Your task to perform on an android device: What is the capital of Norway? Image 0: 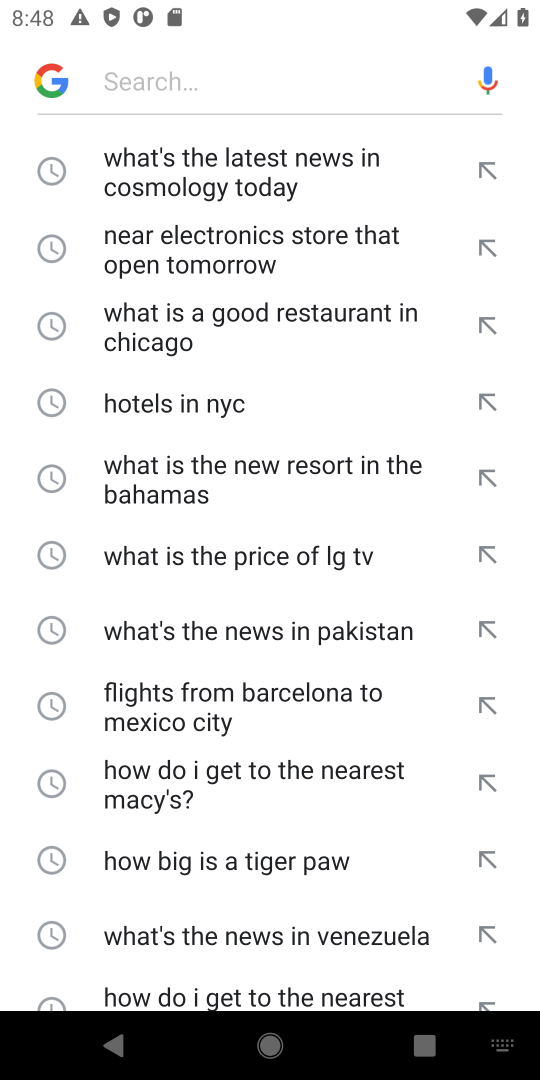
Step 0: press home button
Your task to perform on an android device: What is the capital of Norway? Image 1: 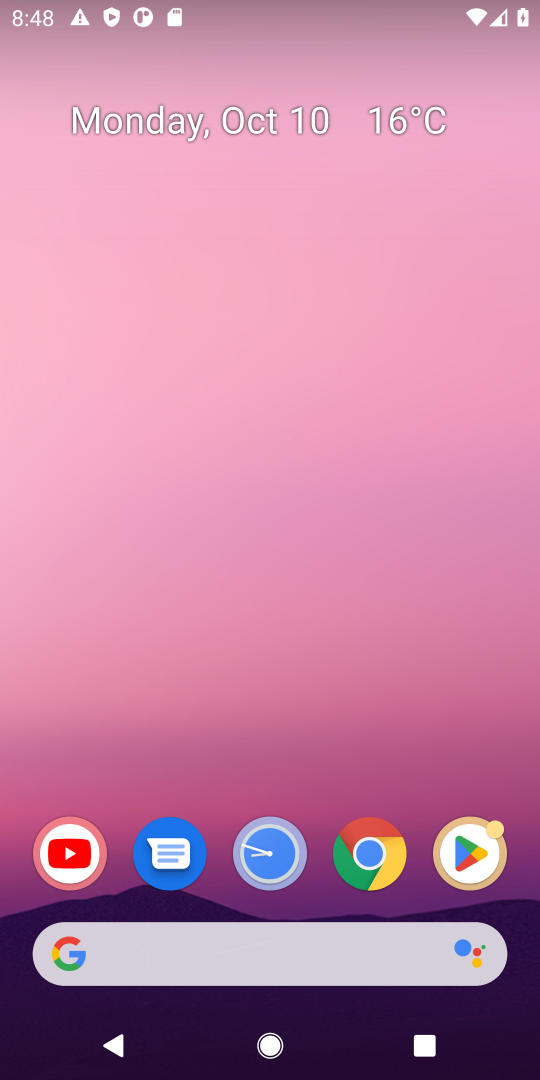
Step 1: drag from (343, 917) to (322, 85)
Your task to perform on an android device: What is the capital of Norway? Image 2: 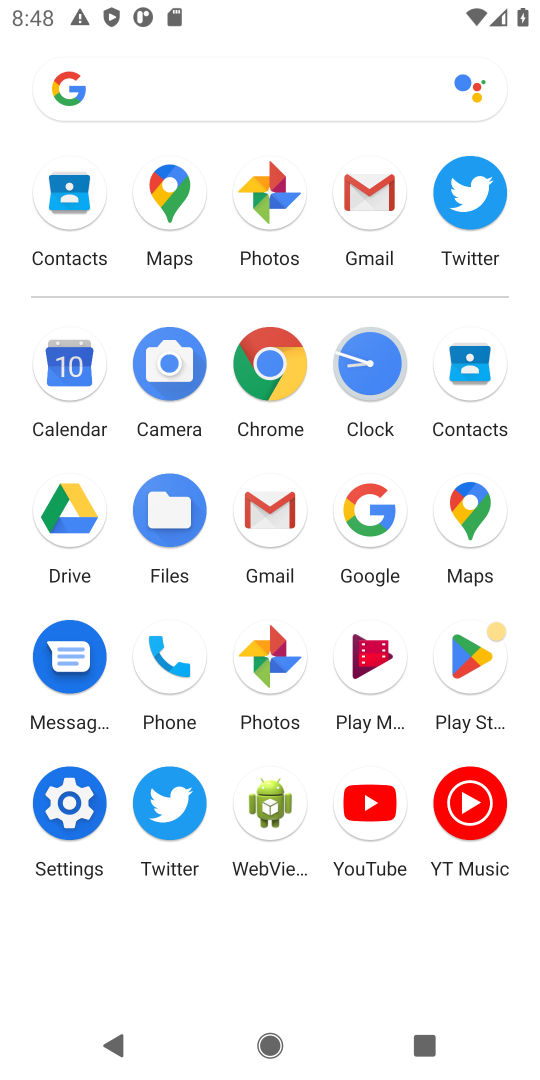
Step 2: click (375, 507)
Your task to perform on an android device: What is the capital of Norway? Image 3: 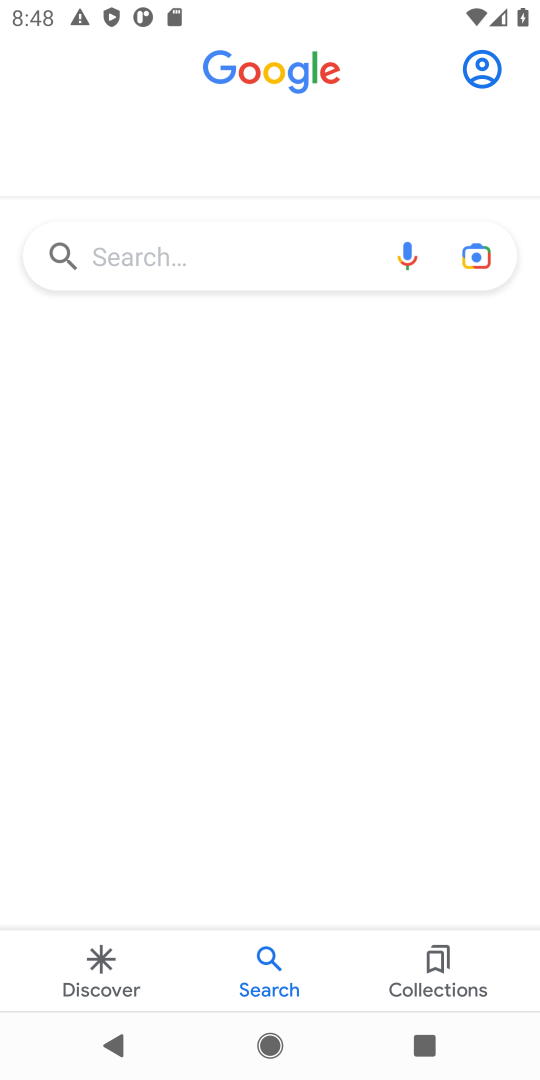
Step 3: click (163, 268)
Your task to perform on an android device: What is the capital of Norway? Image 4: 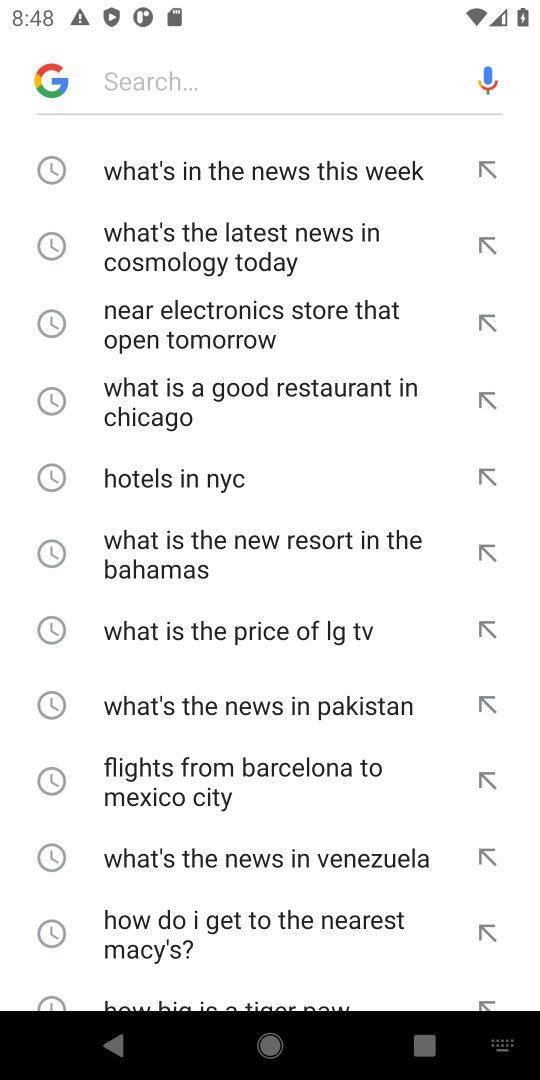
Step 4: type "What is the capital of Norway?"
Your task to perform on an android device: What is the capital of Norway? Image 5: 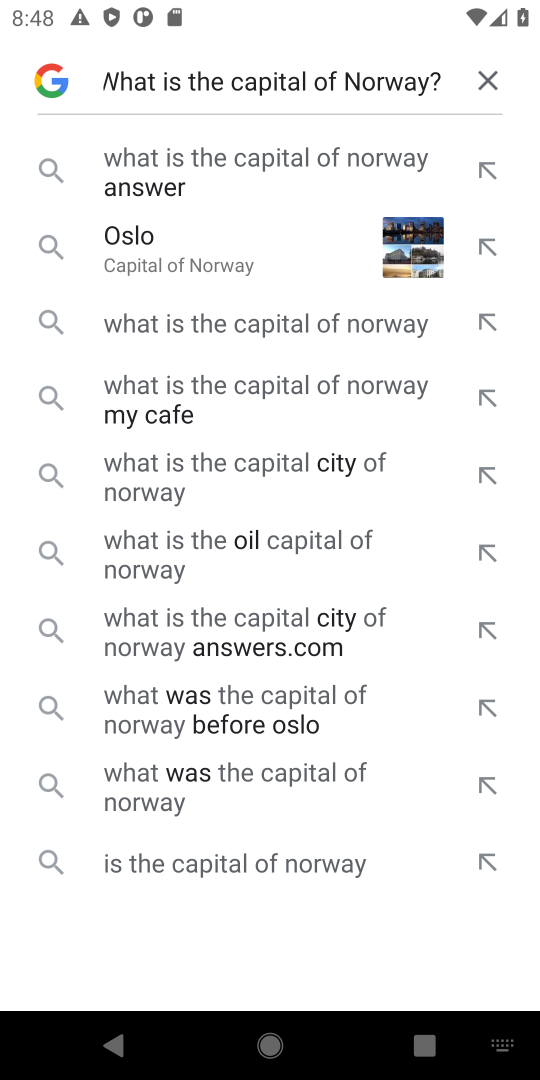
Step 5: type ""
Your task to perform on an android device: What is the capital of Norway? Image 6: 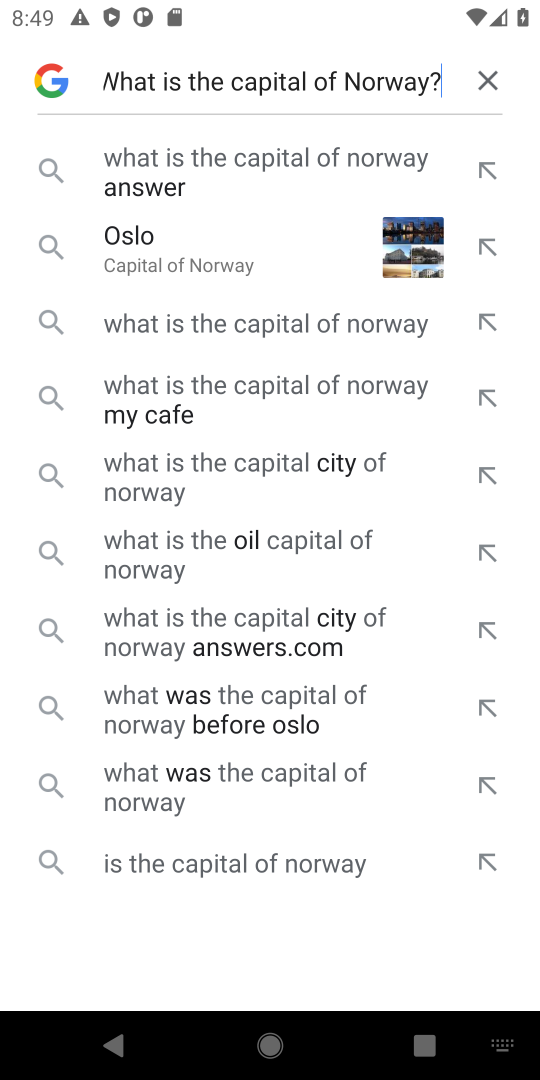
Step 6: click (239, 157)
Your task to perform on an android device: What is the capital of Norway? Image 7: 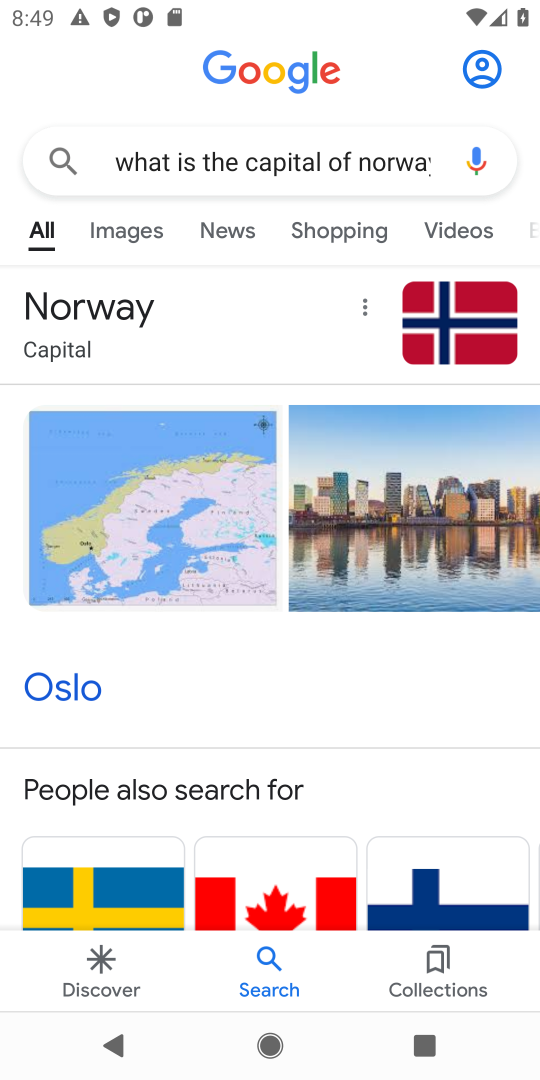
Step 7: task complete